Your task to perform on an android device: Check the weather Image 0: 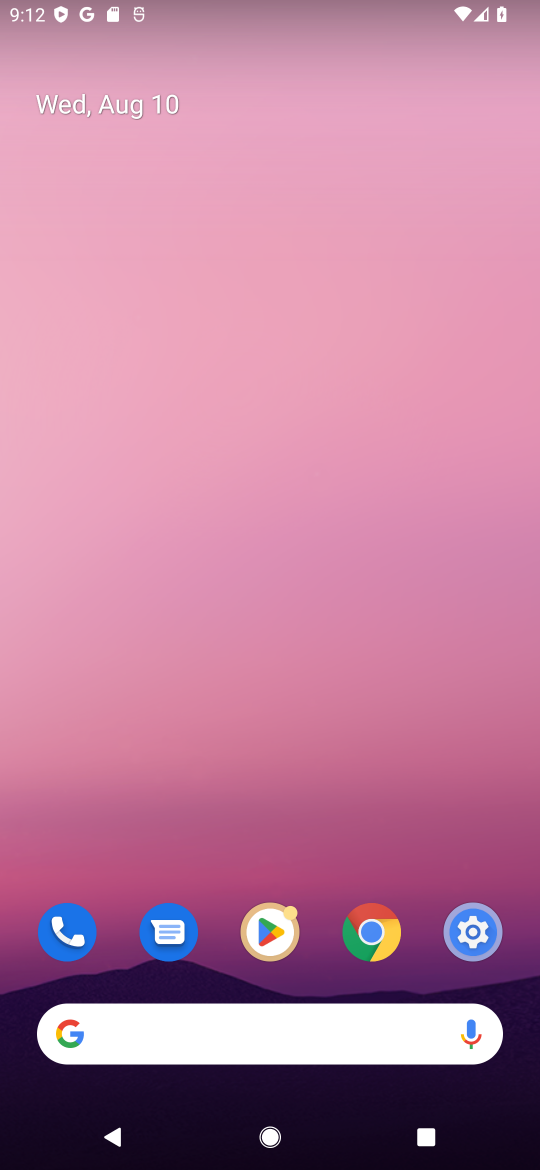
Step 0: click (268, 1038)
Your task to perform on an android device: Check the weather Image 1: 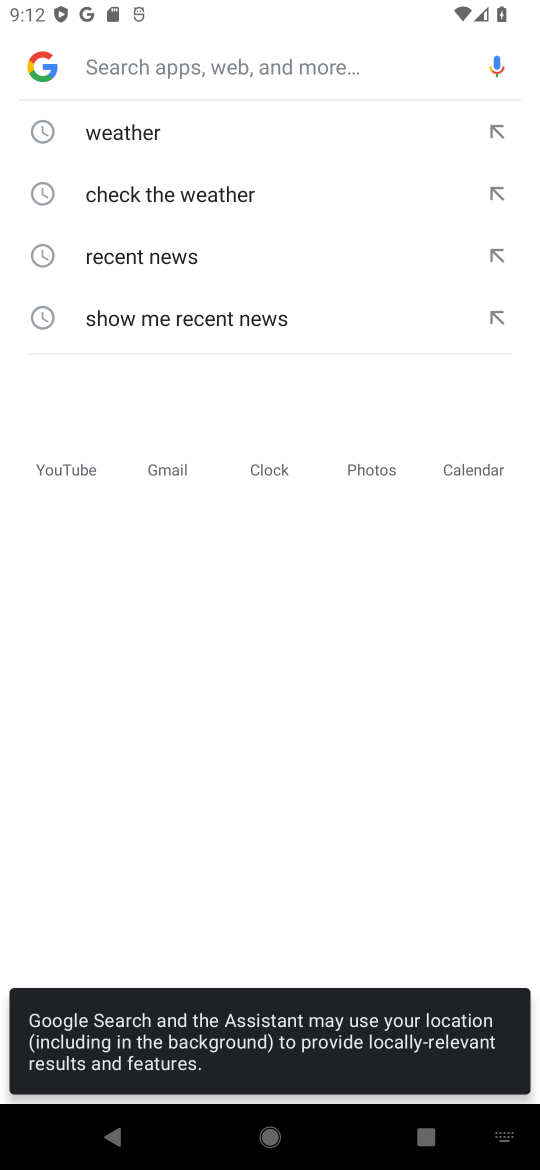
Step 1: click (135, 128)
Your task to perform on an android device: Check the weather Image 2: 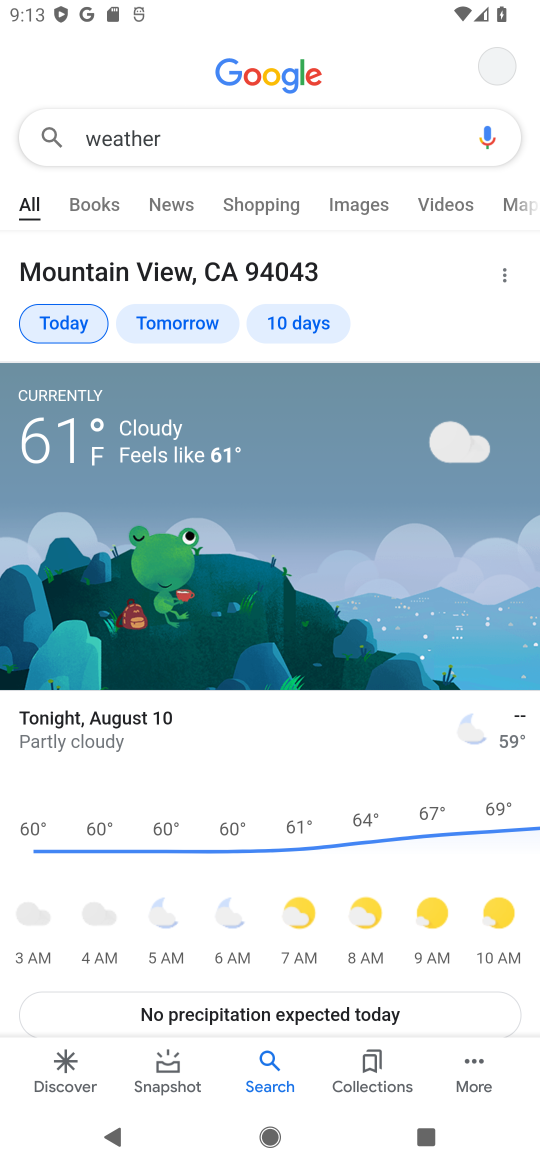
Step 2: task complete